Your task to perform on an android device: Go to Yahoo.com Image 0: 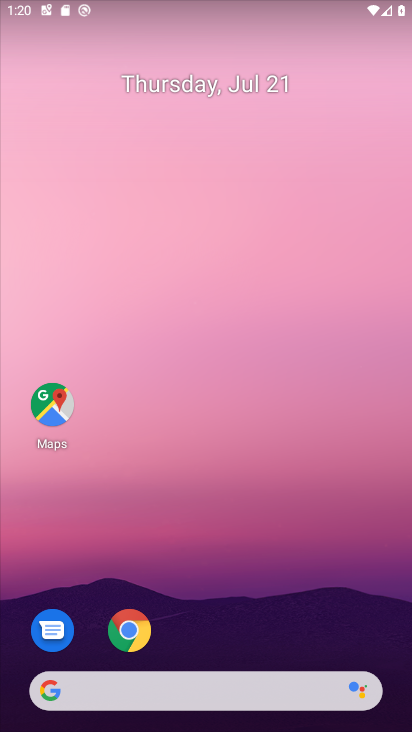
Step 0: click (118, 633)
Your task to perform on an android device: Go to Yahoo.com Image 1: 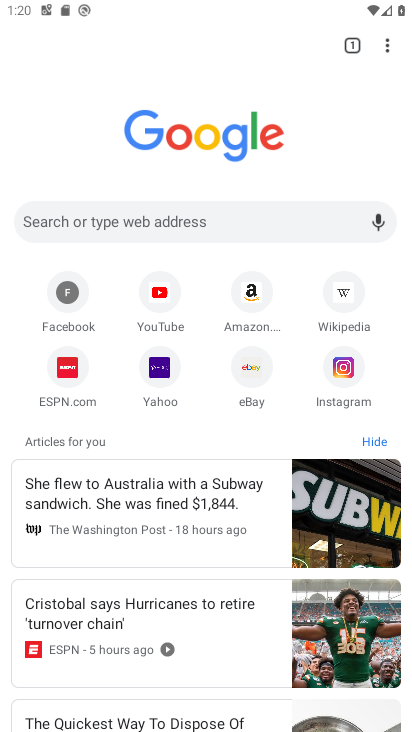
Step 1: click (159, 390)
Your task to perform on an android device: Go to Yahoo.com Image 2: 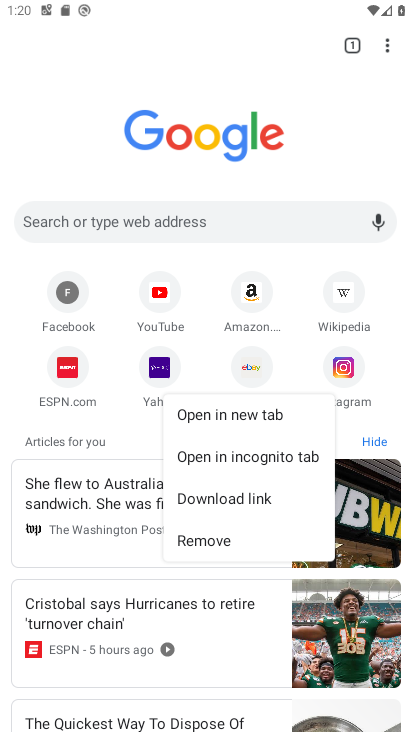
Step 2: click (152, 363)
Your task to perform on an android device: Go to Yahoo.com Image 3: 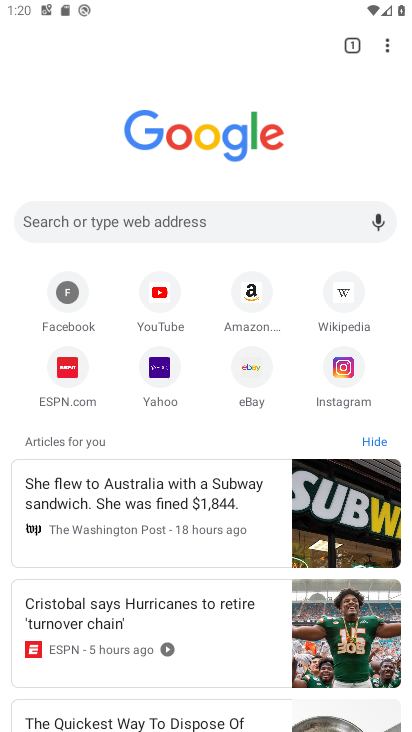
Step 3: click (152, 376)
Your task to perform on an android device: Go to Yahoo.com Image 4: 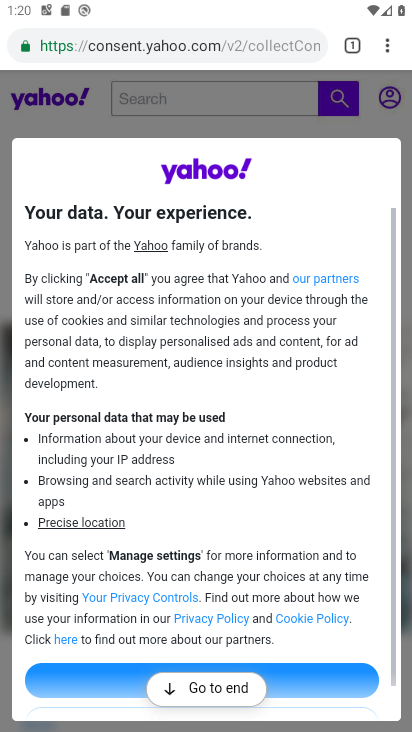
Step 4: task complete